Your task to perform on an android device: open app "Walmart Shopping & Grocery" (install if not already installed) Image 0: 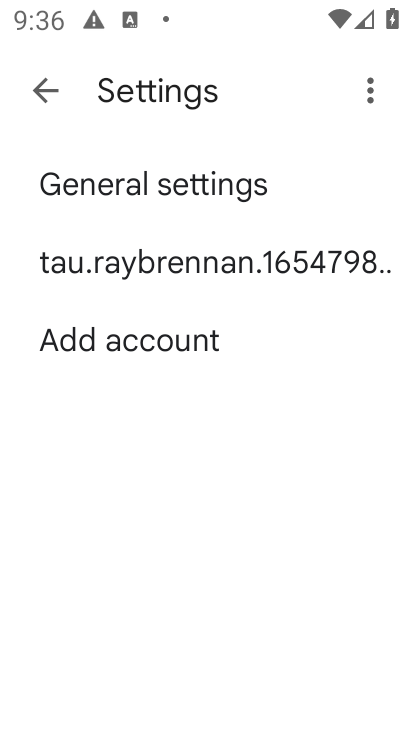
Step 0: press home button
Your task to perform on an android device: open app "Walmart Shopping & Grocery" (install if not already installed) Image 1: 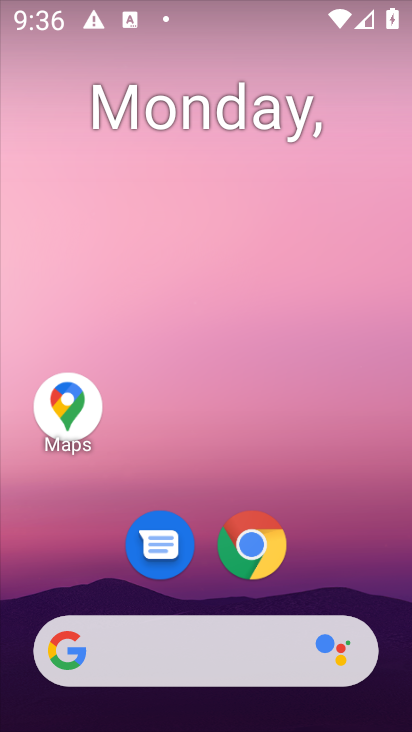
Step 1: drag from (347, 518) to (369, 64)
Your task to perform on an android device: open app "Walmart Shopping & Grocery" (install if not already installed) Image 2: 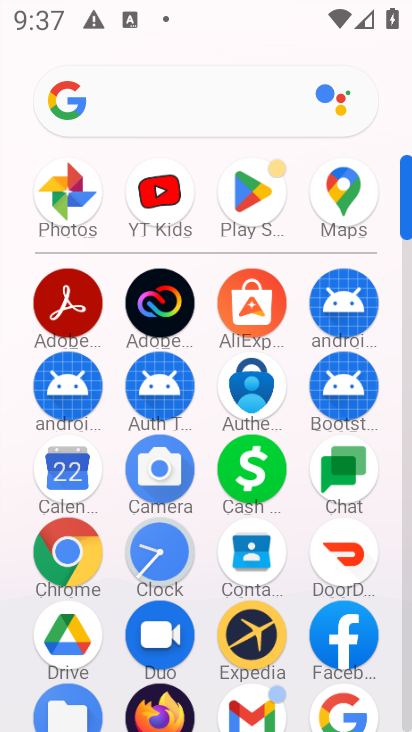
Step 2: click (249, 193)
Your task to perform on an android device: open app "Walmart Shopping & Grocery" (install if not already installed) Image 3: 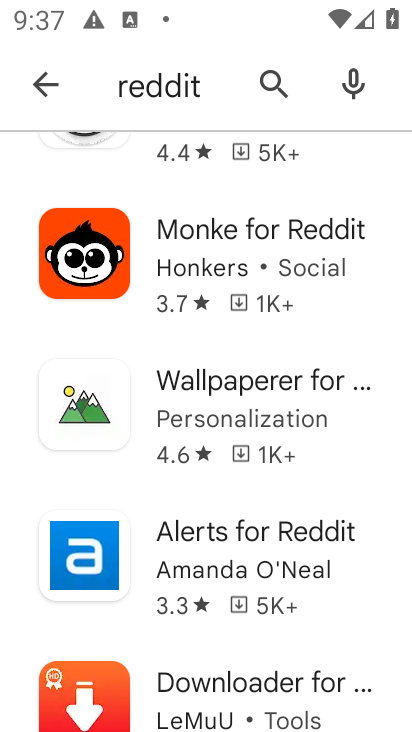
Step 3: press back button
Your task to perform on an android device: open app "Walmart Shopping & Grocery" (install if not already installed) Image 4: 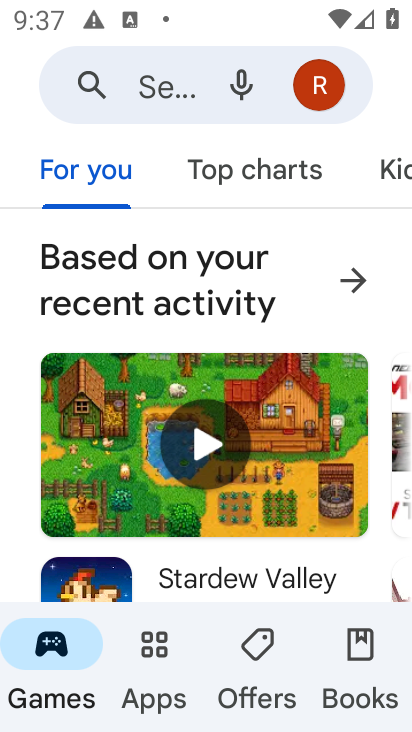
Step 4: click (162, 88)
Your task to perform on an android device: open app "Walmart Shopping & Grocery" (install if not already installed) Image 5: 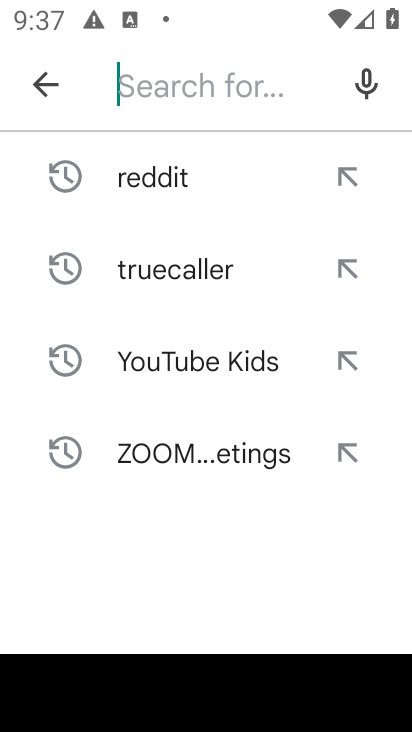
Step 5: type "Walmart Shopping & Grocery"
Your task to perform on an android device: open app "Walmart Shopping & Grocery" (install if not already installed) Image 6: 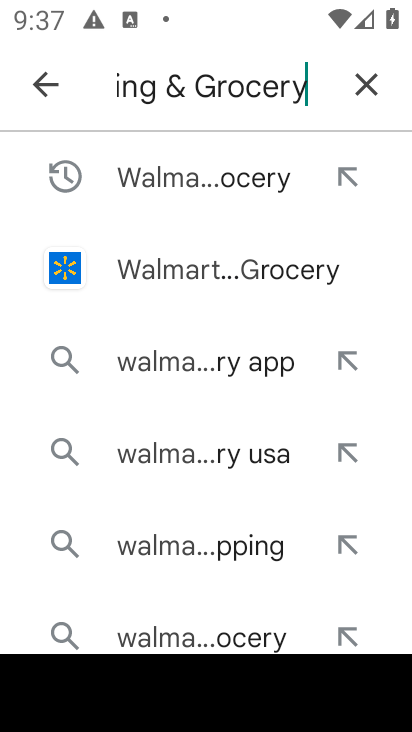
Step 6: press enter
Your task to perform on an android device: open app "Walmart Shopping & Grocery" (install if not already installed) Image 7: 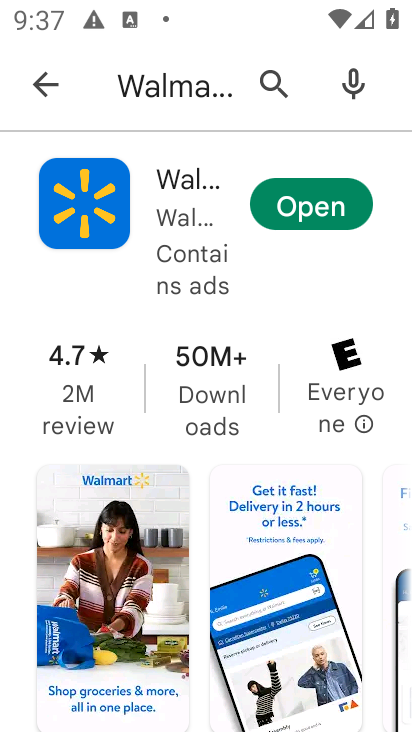
Step 7: click (310, 218)
Your task to perform on an android device: open app "Walmart Shopping & Grocery" (install if not already installed) Image 8: 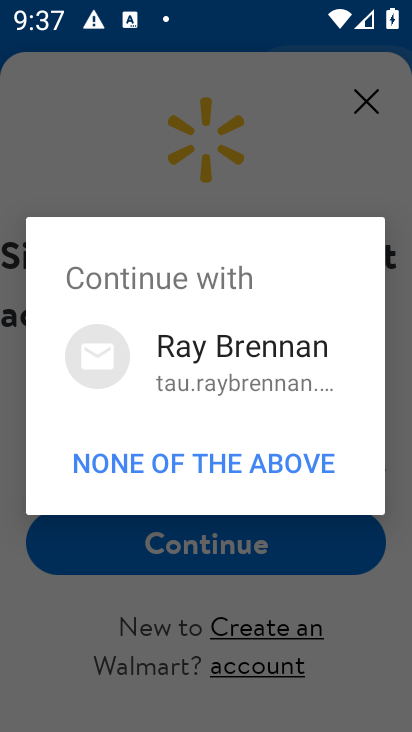
Step 8: task complete